Your task to perform on an android device: turn notification dots on Image 0: 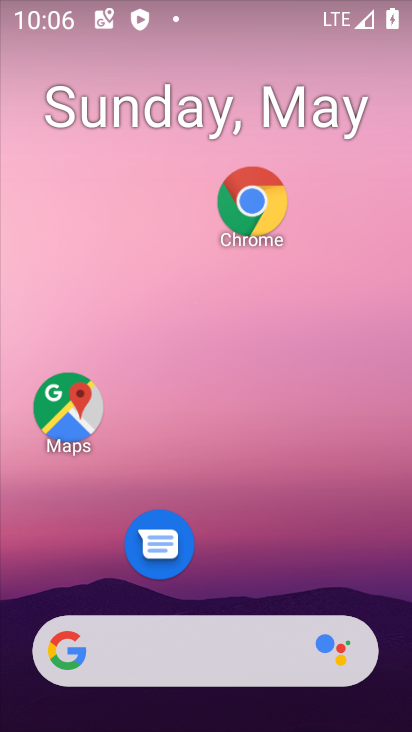
Step 0: drag from (257, 568) to (296, 38)
Your task to perform on an android device: turn notification dots on Image 1: 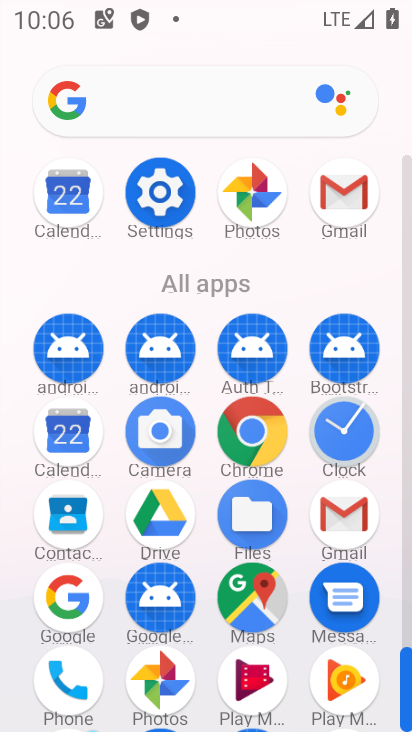
Step 1: click (156, 191)
Your task to perform on an android device: turn notification dots on Image 2: 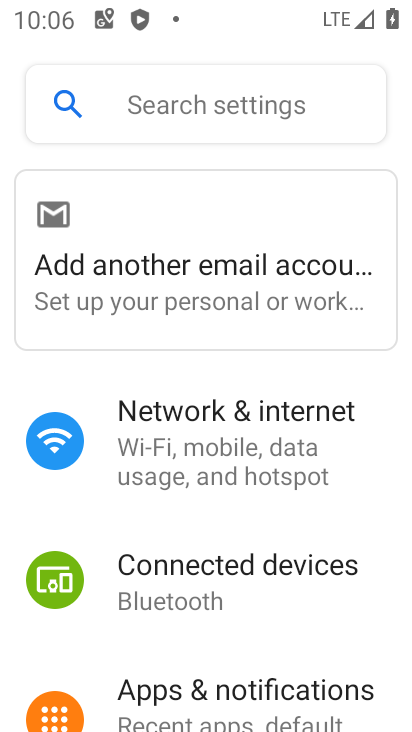
Step 2: click (251, 683)
Your task to perform on an android device: turn notification dots on Image 3: 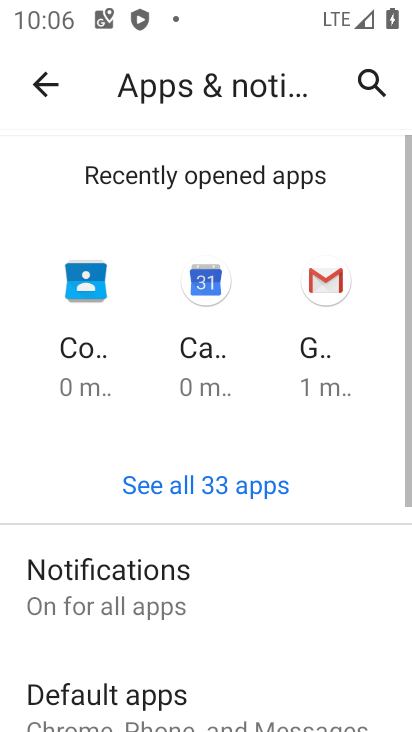
Step 3: click (142, 582)
Your task to perform on an android device: turn notification dots on Image 4: 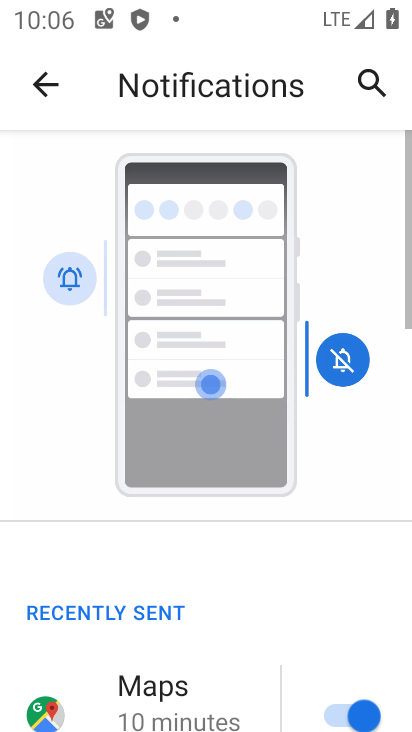
Step 4: drag from (234, 624) to (288, 14)
Your task to perform on an android device: turn notification dots on Image 5: 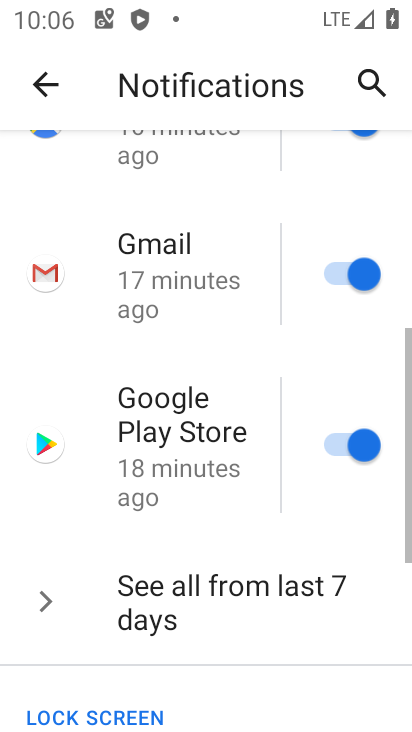
Step 5: drag from (237, 664) to (237, 100)
Your task to perform on an android device: turn notification dots on Image 6: 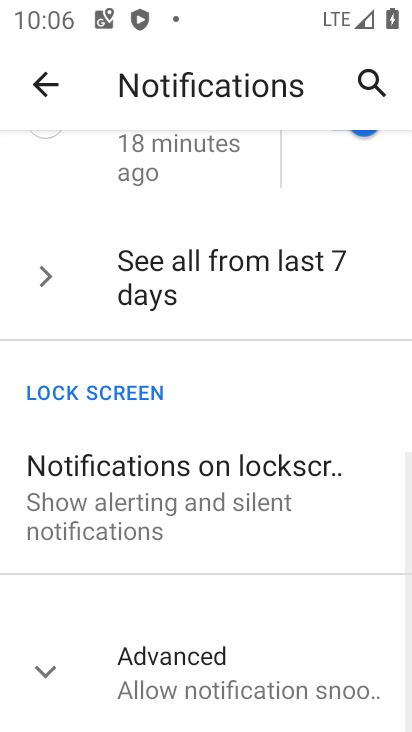
Step 6: click (210, 667)
Your task to perform on an android device: turn notification dots on Image 7: 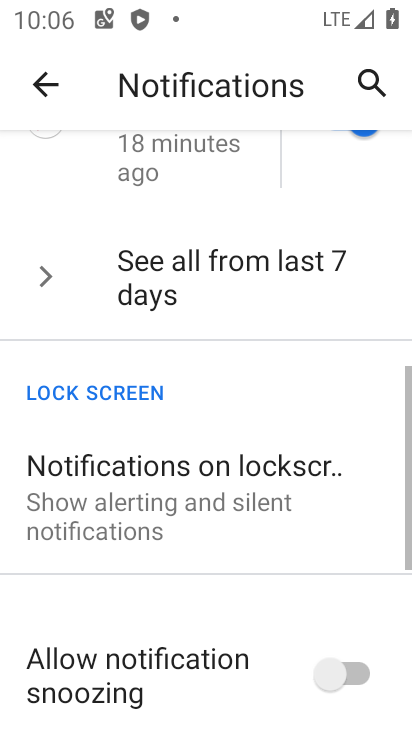
Step 7: drag from (296, 561) to (321, 145)
Your task to perform on an android device: turn notification dots on Image 8: 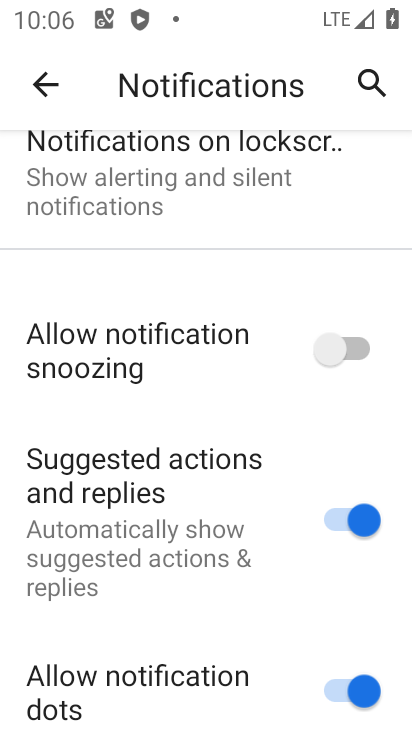
Step 8: click (370, 697)
Your task to perform on an android device: turn notification dots on Image 9: 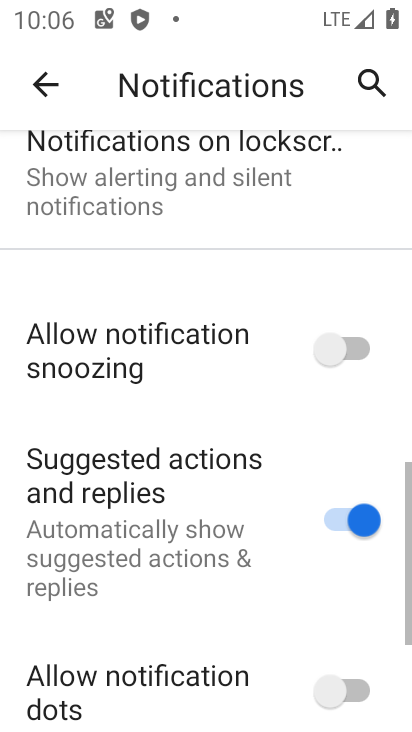
Step 9: click (369, 697)
Your task to perform on an android device: turn notification dots on Image 10: 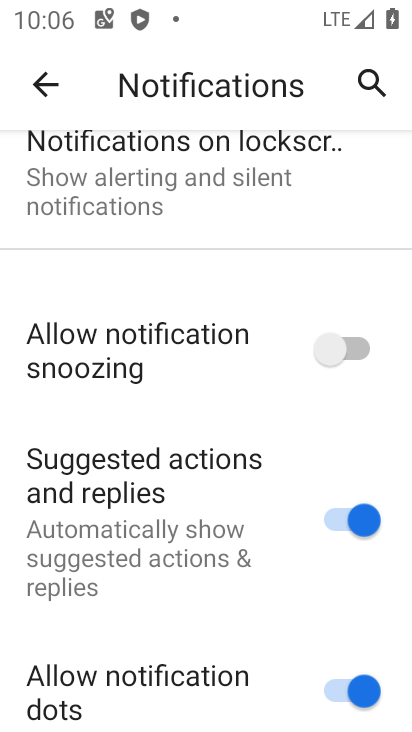
Step 10: task complete